Your task to perform on an android device: turn off smart reply in the gmail app Image 0: 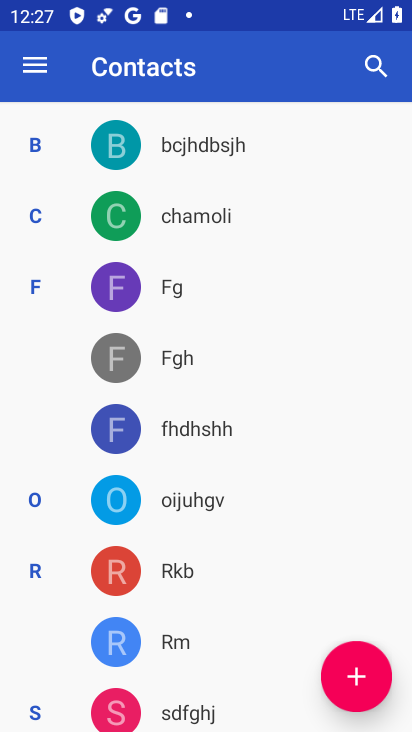
Step 0: press home button
Your task to perform on an android device: turn off smart reply in the gmail app Image 1: 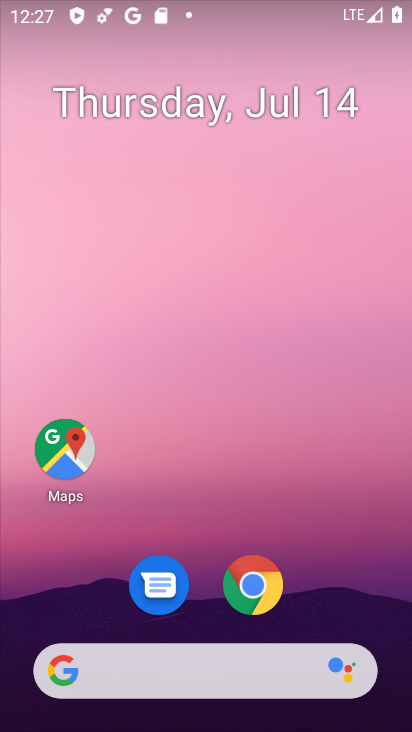
Step 1: drag from (317, 603) to (293, 18)
Your task to perform on an android device: turn off smart reply in the gmail app Image 2: 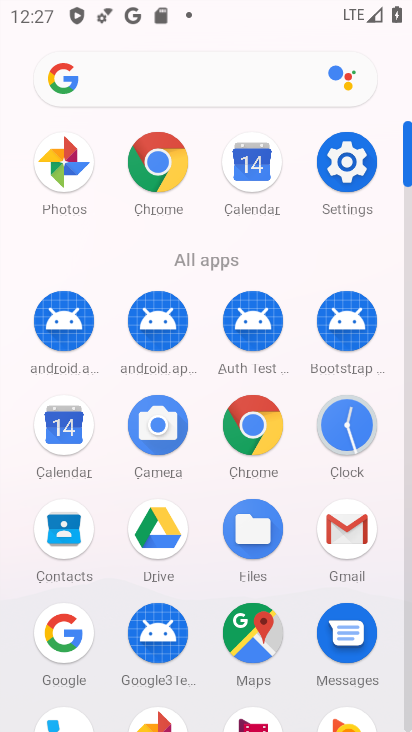
Step 2: click (357, 525)
Your task to perform on an android device: turn off smart reply in the gmail app Image 3: 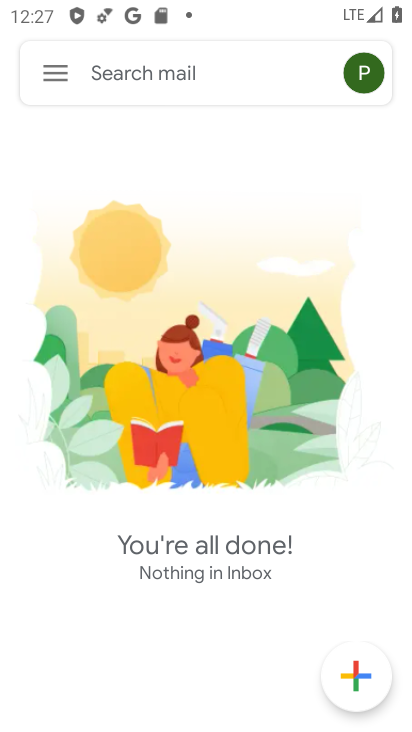
Step 3: drag from (202, 637) to (227, 483)
Your task to perform on an android device: turn off smart reply in the gmail app Image 4: 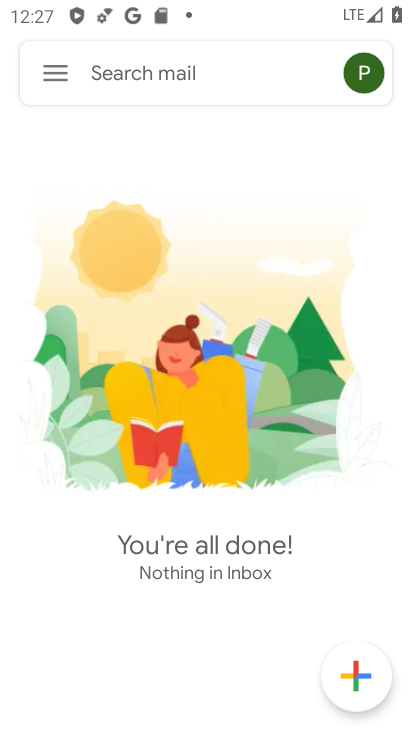
Step 4: click (53, 73)
Your task to perform on an android device: turn off smart reply in the gmail app Image 5: 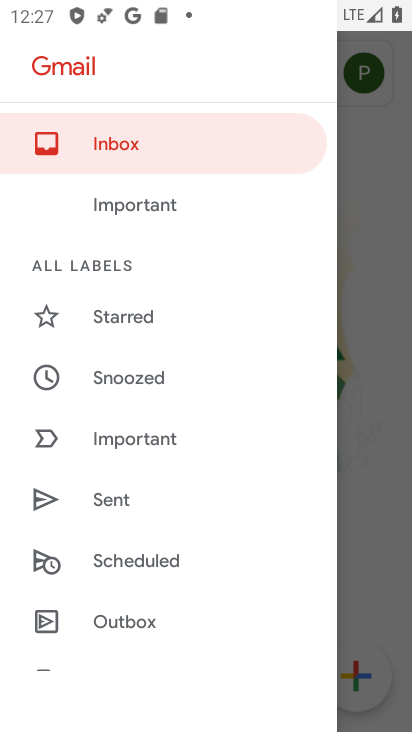
Step 5: drag from (160, 509) to (221, 158)
Your task to perform on an android device: turn off smart reply in the gmail app Image 6: 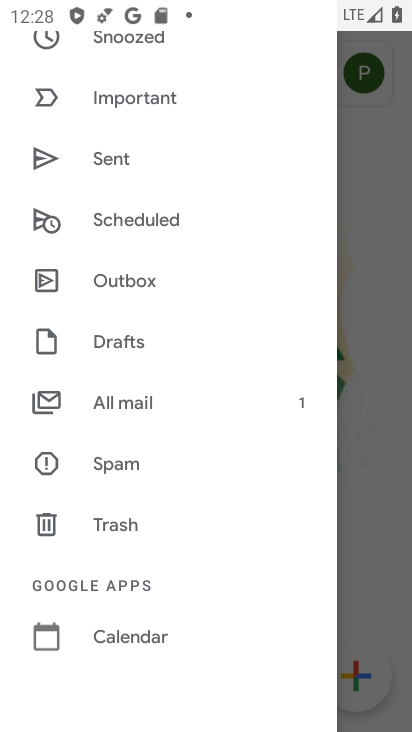
Step 6: drag from (175, 495) to (234, 224)
Your task to perform on an android device: turn off smart reply in the gmail app Image 7: 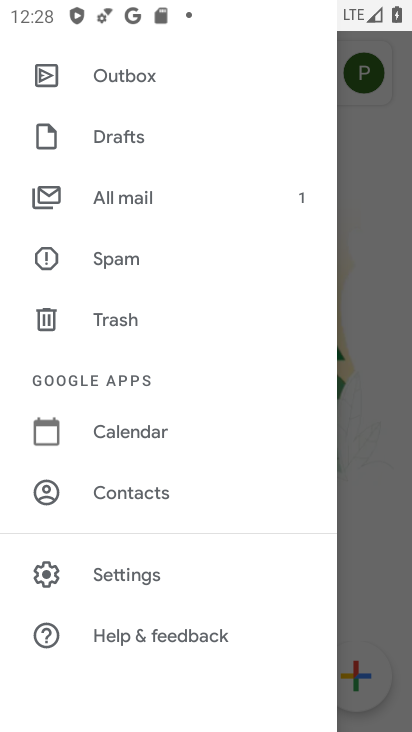
Step 7: click (125, 577)
Your task to perform on an android device: turn off smart reply in the gmail app Image 8: 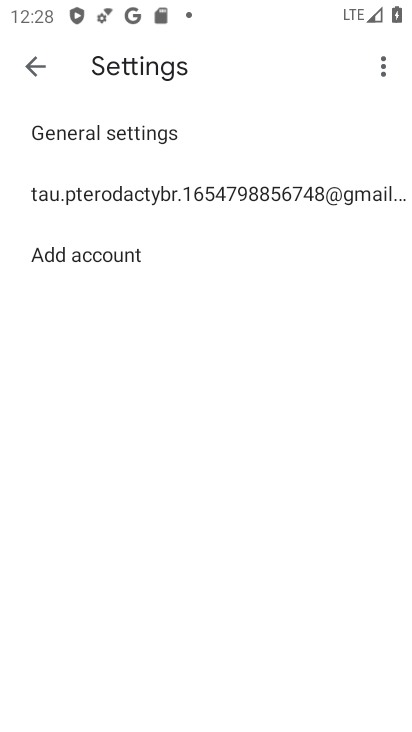
Step 8: click (307, 196)
Your task to perform on an android device: turn off smart reply in the gmail app Image 9: 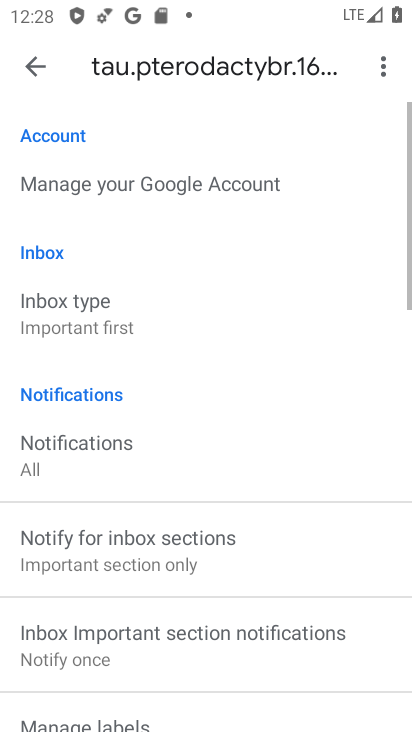
Step 9: drag from (238, 538) to (257, 19)
Your task to perform on an android device: turn off smart reply in the gmail app Image 10: 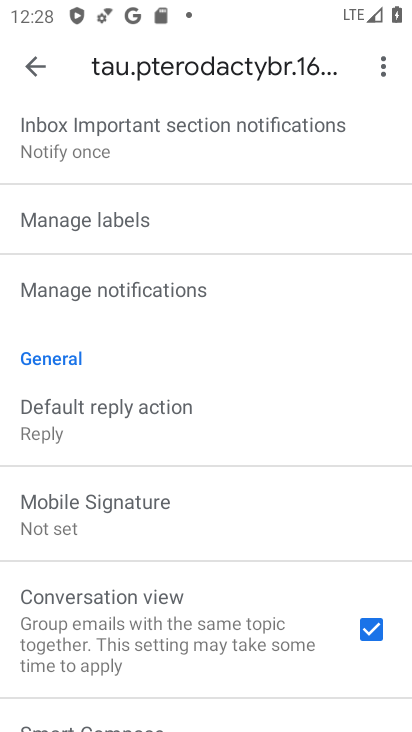
Step 10: drag from (237, 567) to (273, 159)
Your task to perform on an android device: turn off smart reply in the gmail app Image 11: 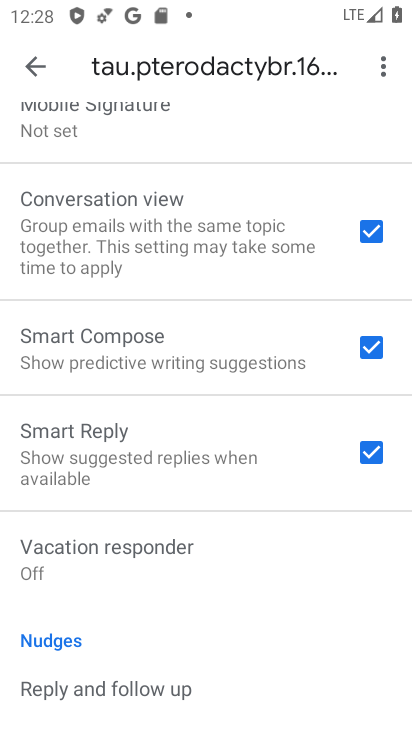
Step 11: click (370, 456)
Your task to perform on an android device: turn off smart reply in the gmail app Image 12: 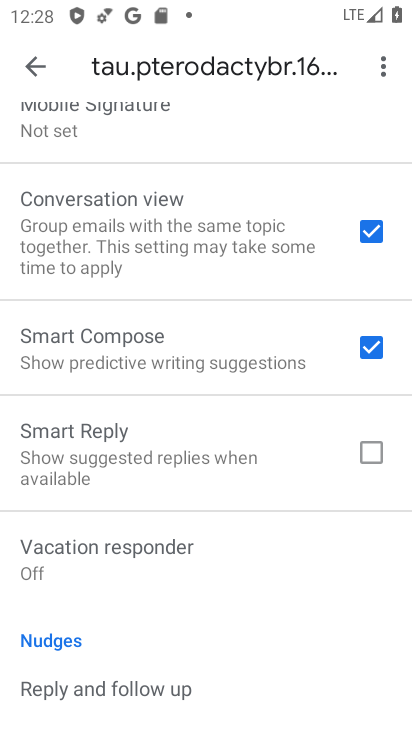
Step 12: click (37, 70)
Your task to perform on an android device: turn off smart reply in the gmail app Image 13: 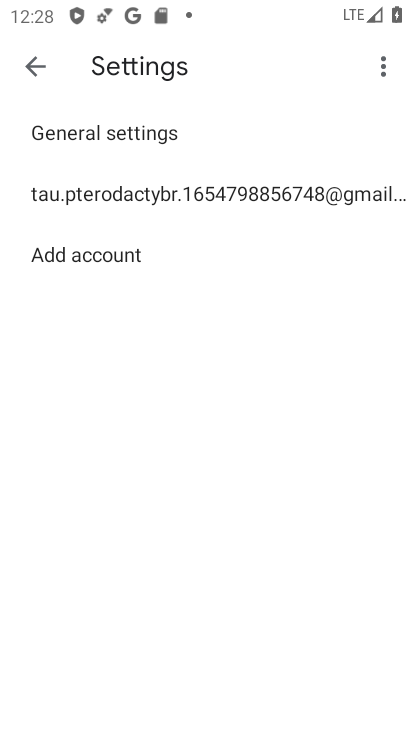
Step 13: task complete